Your task to perform on an android device: open a bookmark in the chrome app Image 0: 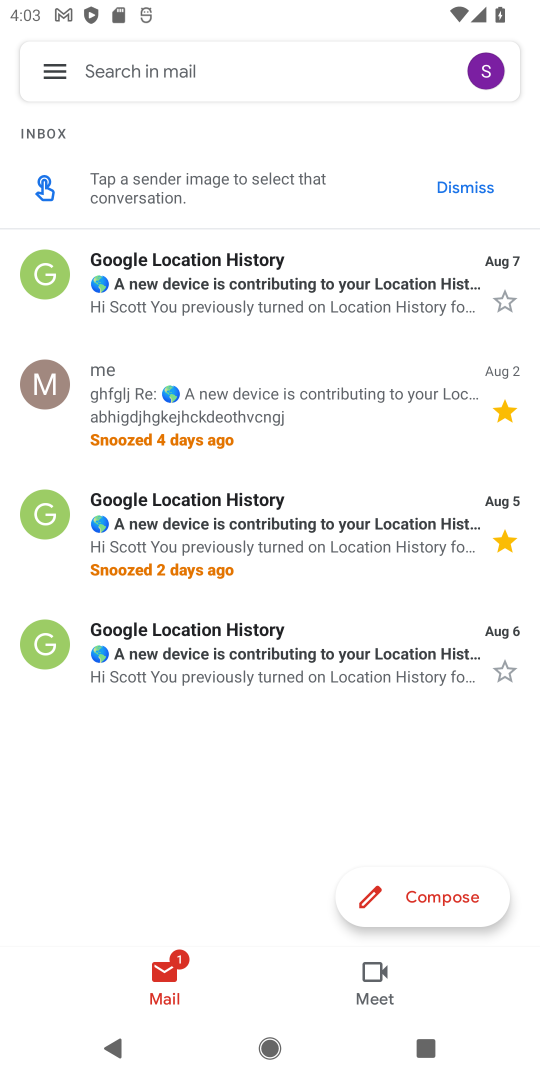
Step 0: press home button
Your task to perform on an android device: open a bookmark in the chrome app Image 1: 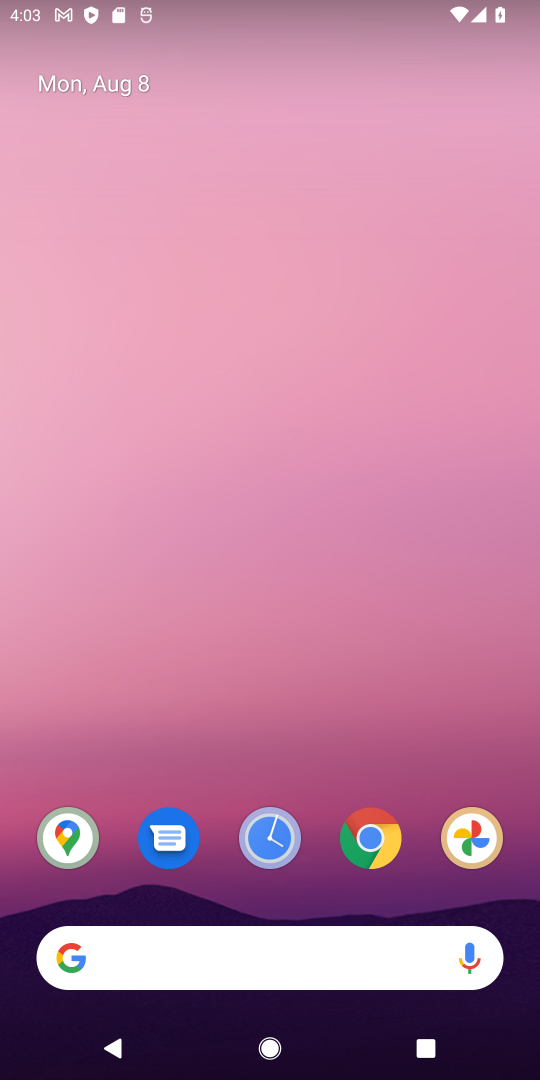
Step 1: click (371, 840)
Your task to perform on an android device: open a bookmark in the chrome app Image 2: 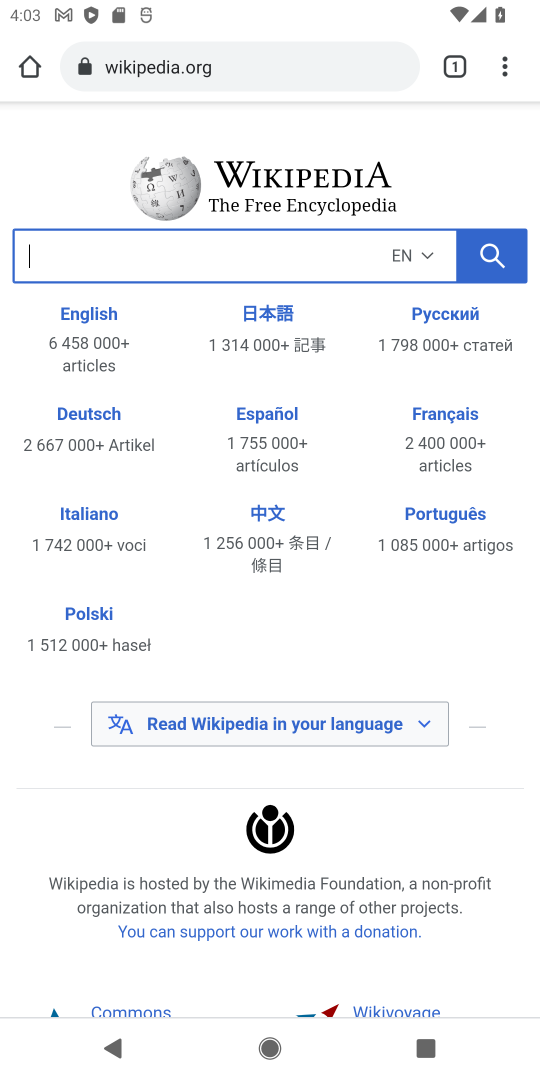
Step 2: click (503, 67)
Your task to perform on an android device: open a bookmark in the chrome app Image 3: 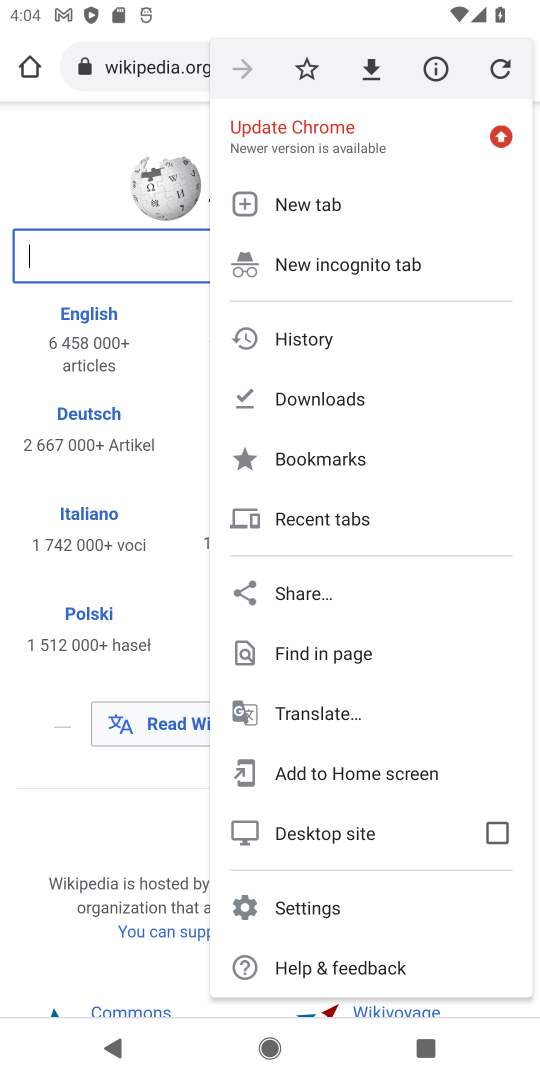
Step 3: click (320, 462)
Your task to perform on an android device: open a bookmark in the chrome app Image 4: 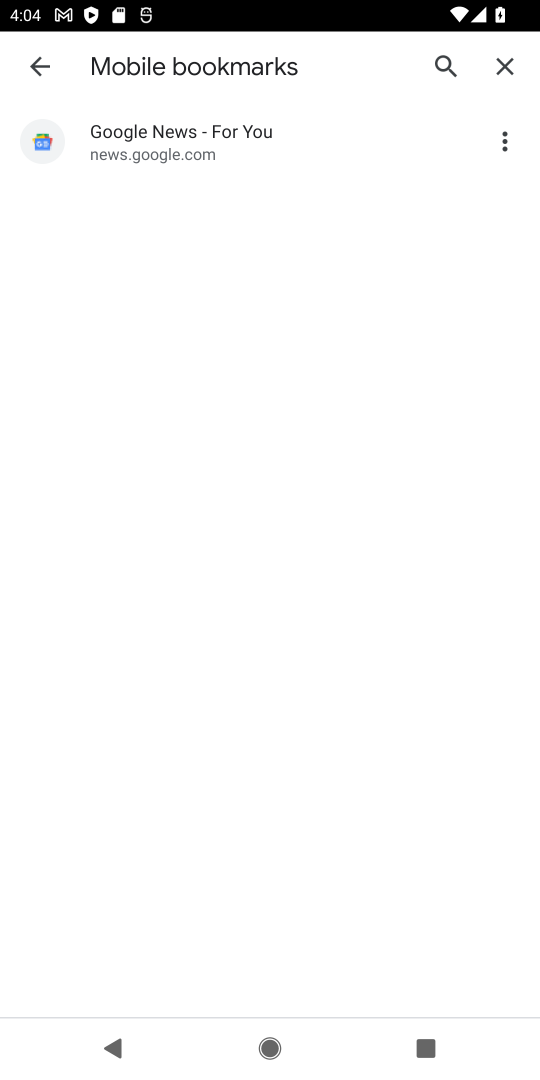
Step 4: task complete